Your task to perform on an android device: Do I have any events tomorrow? Image 0: 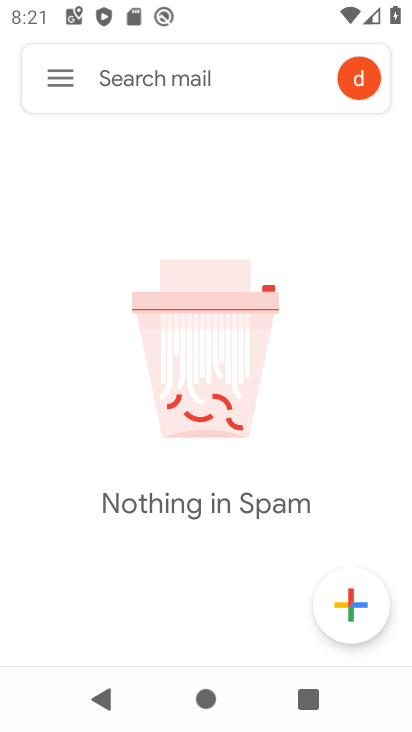
Step 0: press home button
Your task to perform on an android device: Do I have any events tomorrow? Image 1: 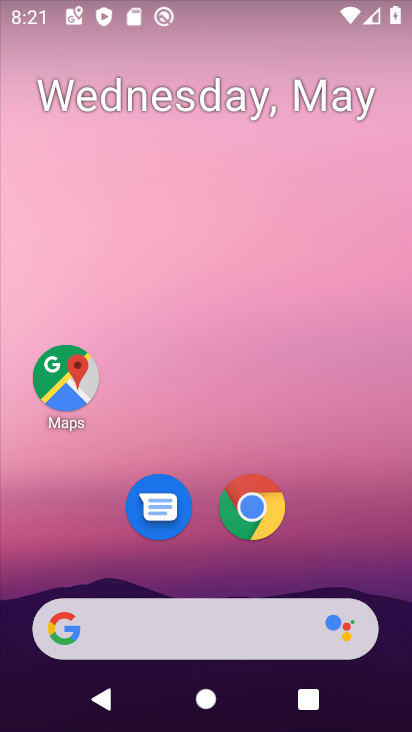
Step 1: drag from (219, 445) to (244, 203)
Your task to perform on an android device: Do I have any events tomorrow? Image 2: 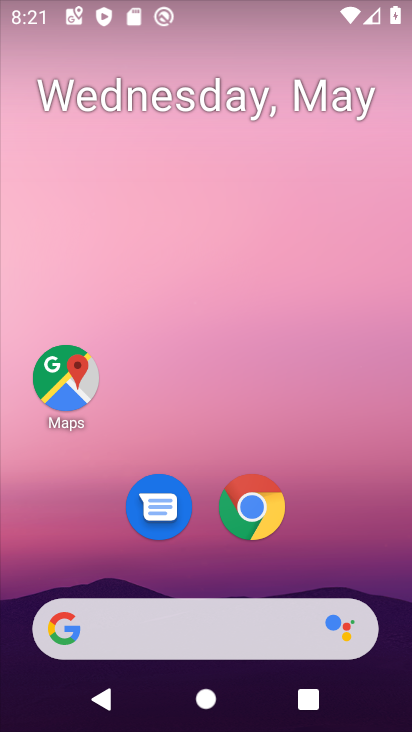
Step 2: drag from (218, 603) to (218, 225)
Your task to perform on an android device: Do I have any events tomorrow? Image 3: 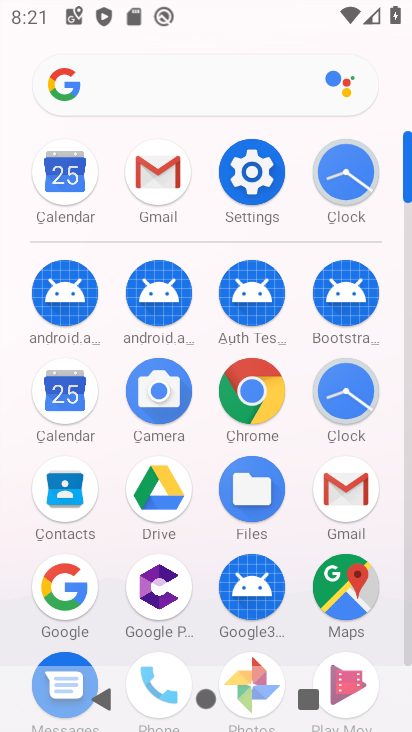
Step 3: click (71, 172)
Your task to perform on an android device: Do I have any events tomorrow? Image 4: 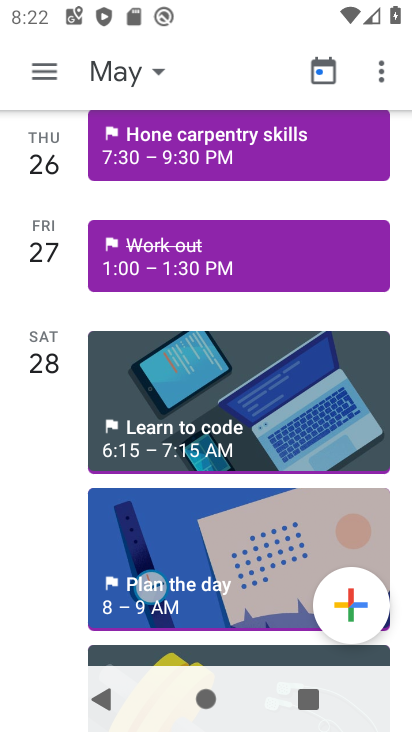
Step 4: task complete